Your task to perform on an android device: open app "Google Photos" (install if not already installed) Image 0: 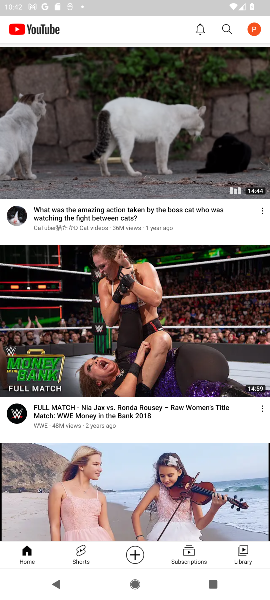
Step 0: press home button
Your task to perform on an android device: open app "Google Photos" (install if not already installed) Image 1: 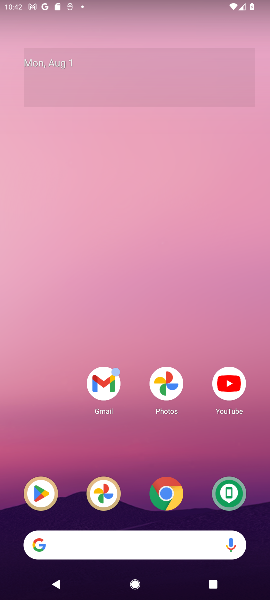
Step 1: click (101, 488)
Your task to perform on an android device: open app "Google Photos" (install if not already installed) Image 2: 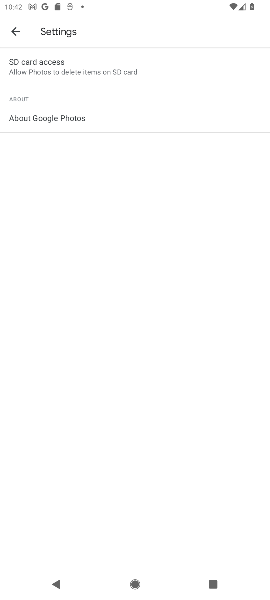
Step 2: task complete